Your task to perform on an android device: Turn off the flashlight Image 0: 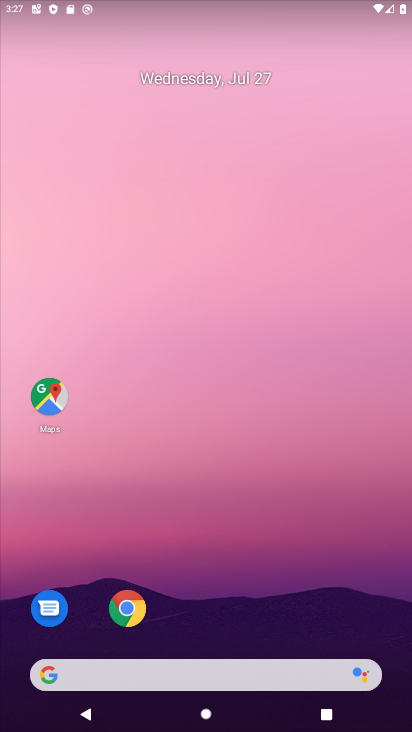
Step 0: drag from (390, 639) to (330, 136)
Your task to perform on an android device: Turn off the flashlight Image 1: 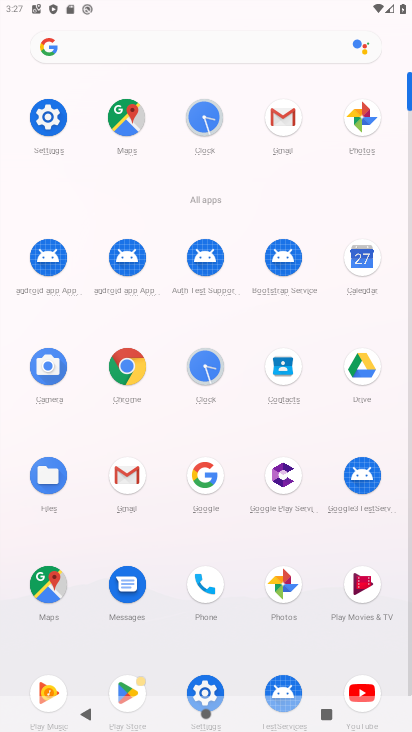
Step 1: click (201, 672)
Your task to perform on an android device: Turn off the flashlight Image 2: 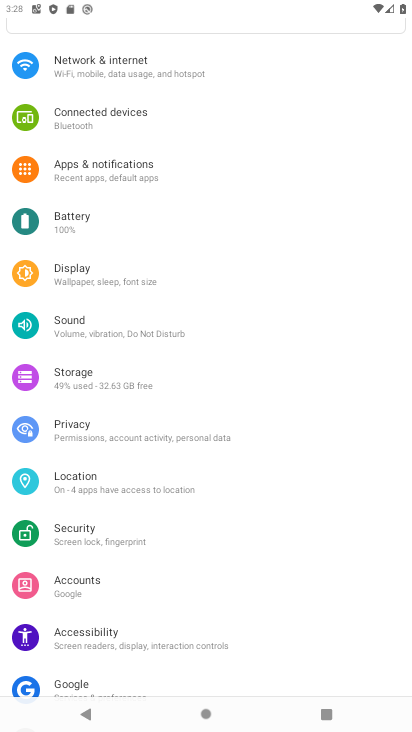
Step 2: click (79, 271)
Your task to perform on an android device: Turn off the flashlight Image 3: 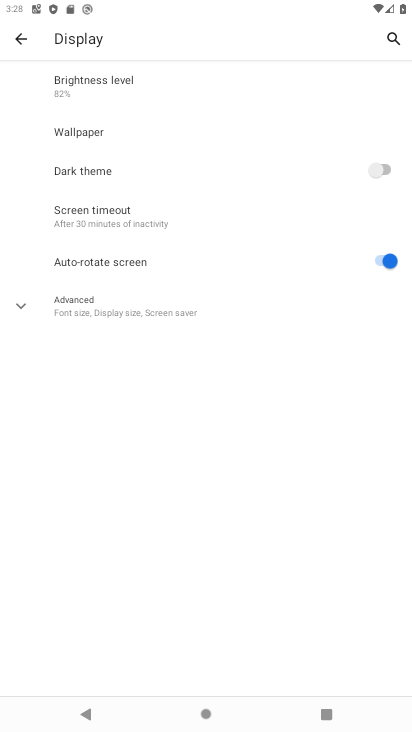
Step 3: task complete